Your task to perform on an android device: turn off improve location accuracy Image 0: 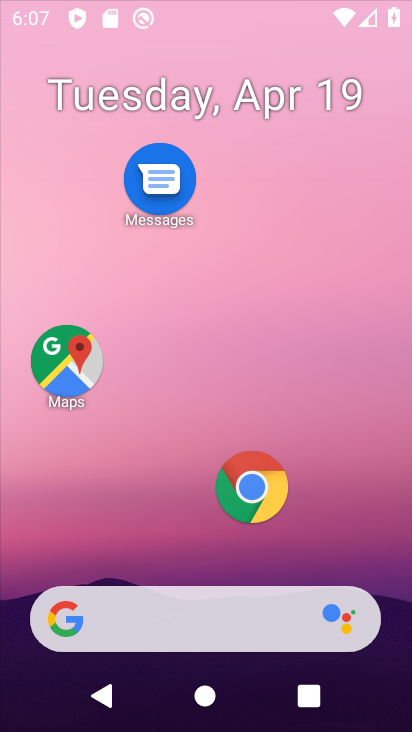
Step 0: click (234, 45)
Your task to perform on an android device: turn off improve location accuracy Image 1: 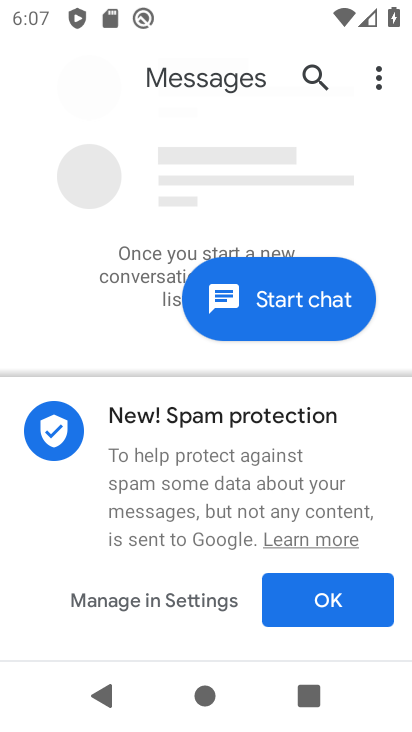
Step 1: press home button
Your task to perform on an android device: turn off improve location accuracy Image 2: 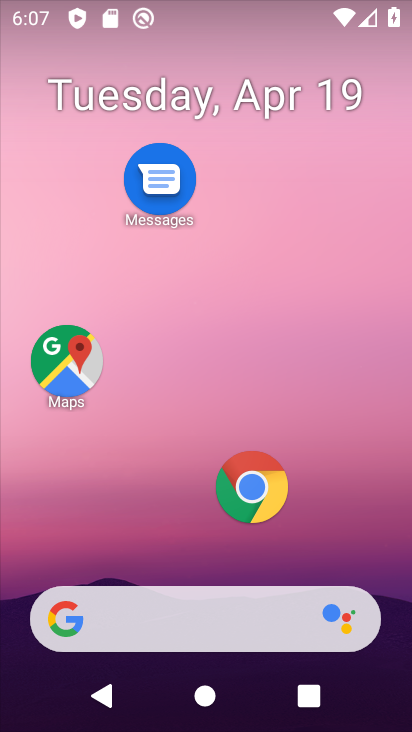
Step 2: drag from (201, 554) to (224, 111)
Your task to perform on an android device: turn off improve location accuracy Image 3: 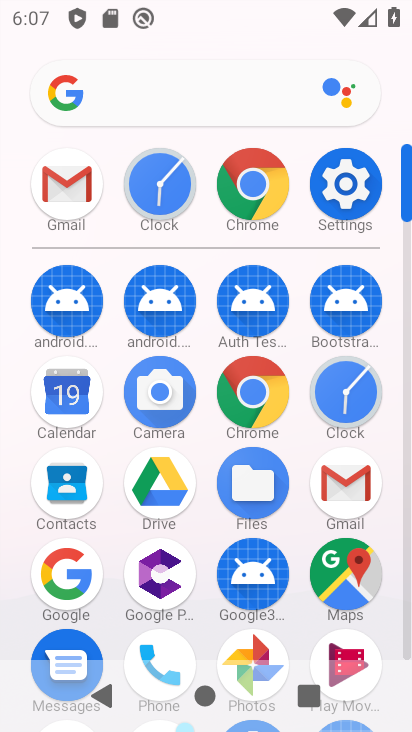
Step 3: click (345, 179)
Your task to perform on an android device: turn off improve location accuracy Image 4: 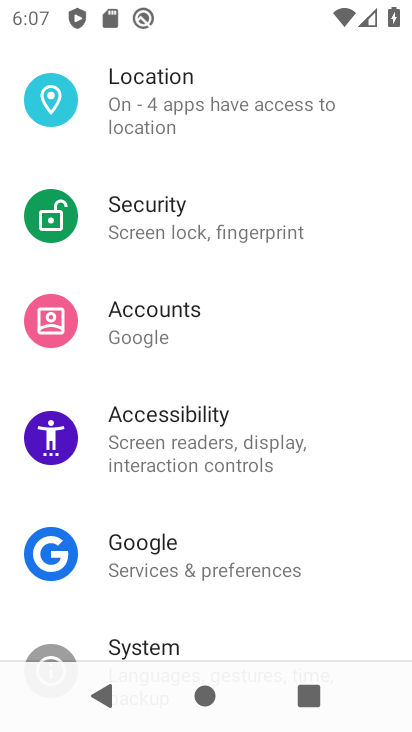
Step 4: click (209, 86)
Your task to perform on an android device: turn off improve location accuracy Image 5: 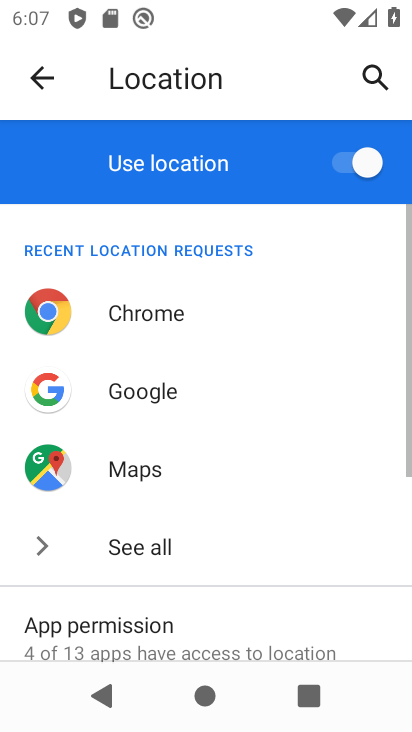
Step 5: drag from (203, 626) to (214, 179)
Your task to perform on an android device: turn off improve location accuracy Image 6: 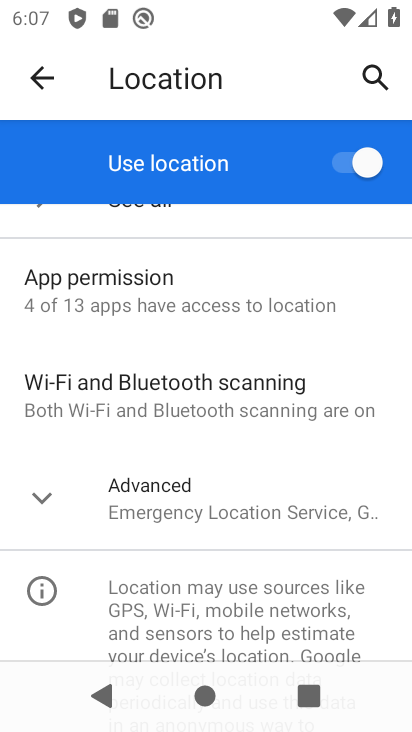
Step 6: click (47, 489)
Your task to perform on an android device: turn off improve location accuracy Image 7: 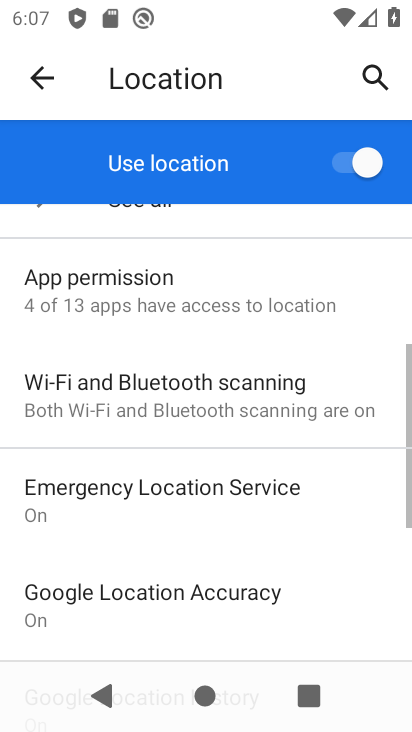
Step 7: drag from (210, 527) to (229, 292)
Your task to perform on an android device: turn off improve location accuracy Image 8: 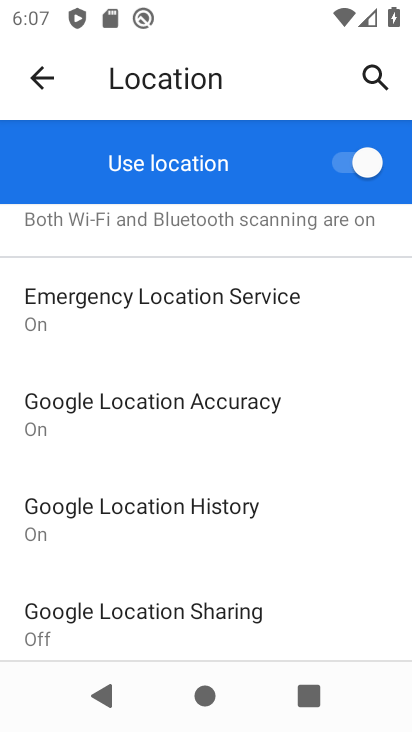
Step 8: click (70, 426)
Your task to perform on an android device: turn off improve location accuracy Image 9: 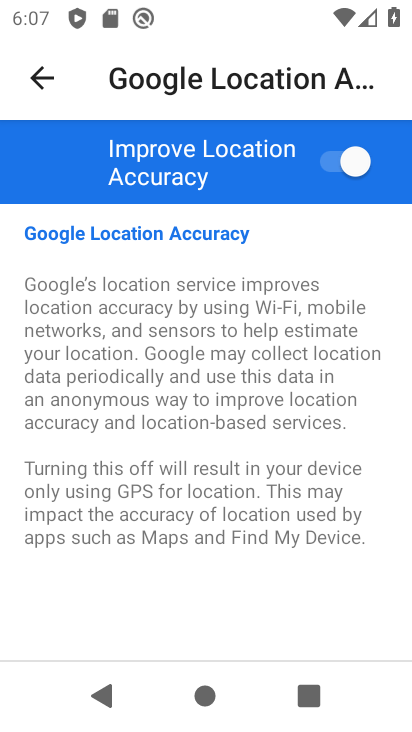
Step 9: click (334, 161)
Your task to perform on an android device: turn off improve location accuracy Image 10: 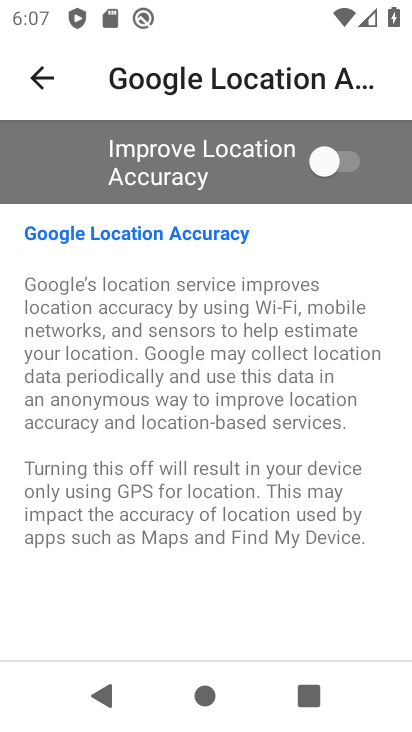
Step 10: task complete